Your task to perform on an android device: change keyboard looks Image 0: 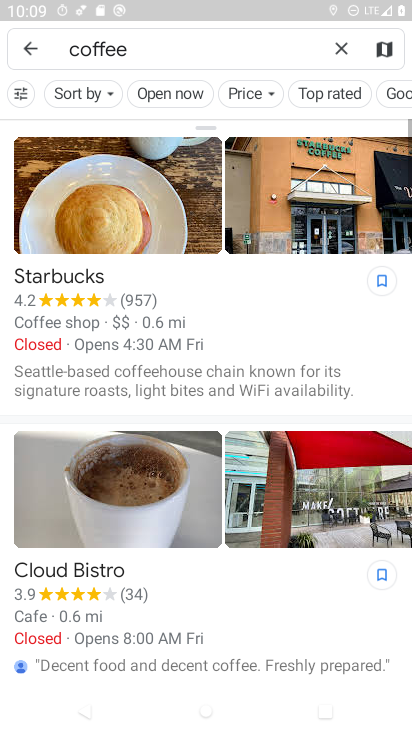
Step 0: press home button
Your task to perform on an android device: change keyboard looks Image 1: 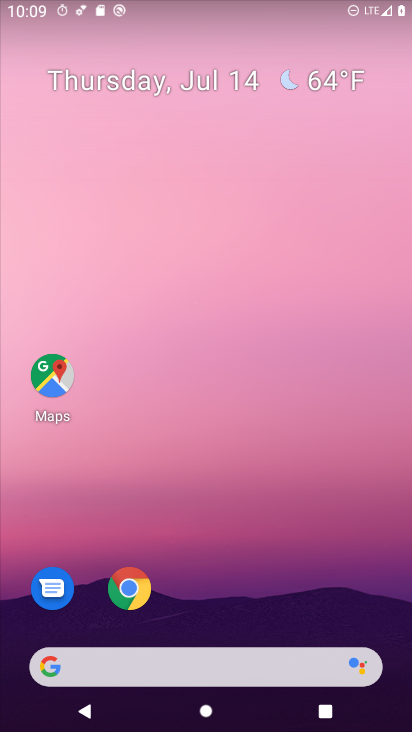
Step 1: drag from (344, 610) to (365, 108)
Your task to perform on an android device: change keyboard looks Image 2: 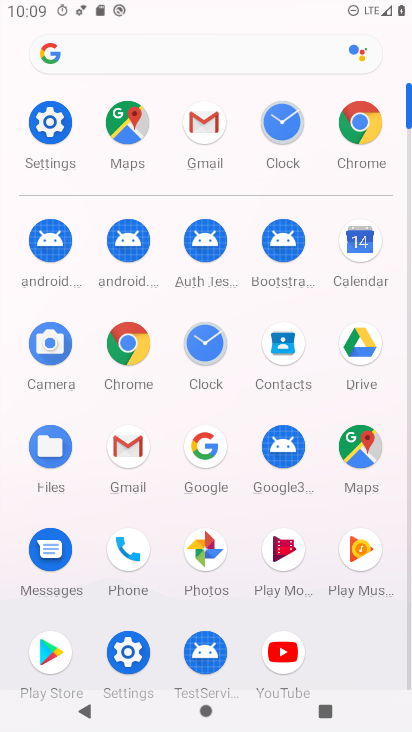
Step 2: click (50, 136)
Your task to perform on an android device: change keyboard looks Image 3: 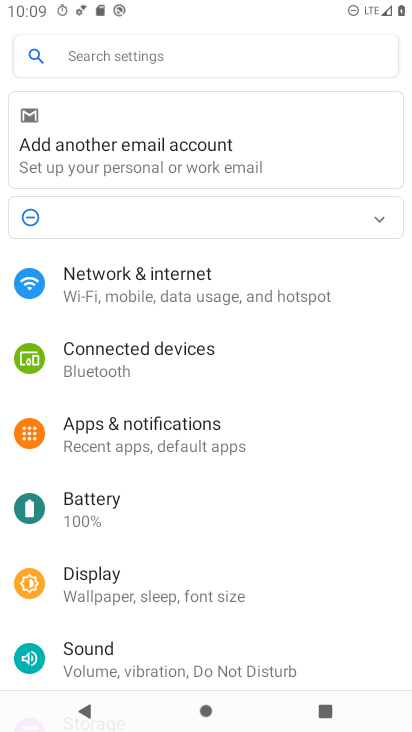
Step 3: drag from (334, 507) to (345, 437)
Your task to perform on an android device: change keyboard looks Image 4: 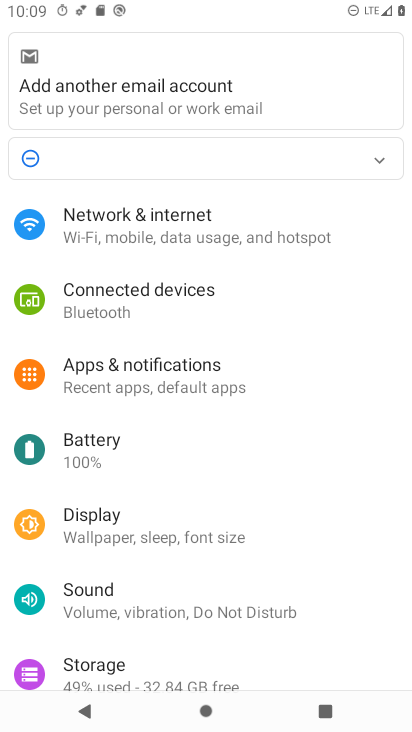
Step 4: drag from (338, 575) to (354, 503)
Your task to perform on an android device: change keyboard looks Image 5: 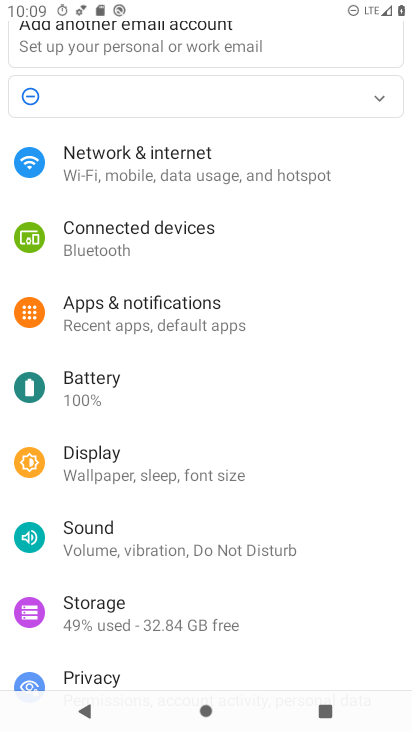
Step 5: drag from (351, 595) to (358, 514)
Your task to perform on an android device: change keyboard looks Image 6: 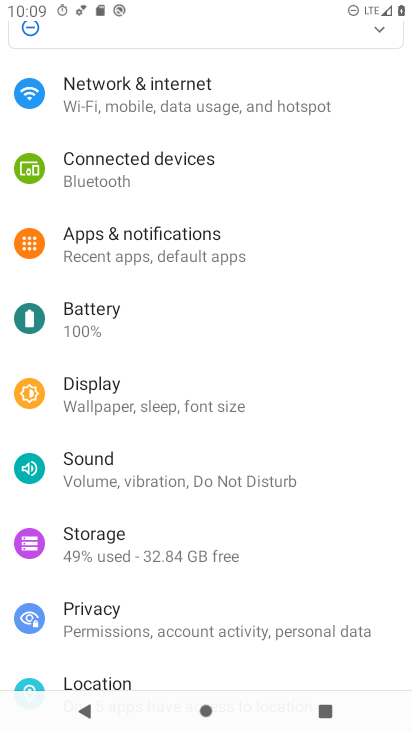
Step 6: drag from (346, 565) to (345, 472)
Your task to perform on an android device: change keyboard looks Image 7: 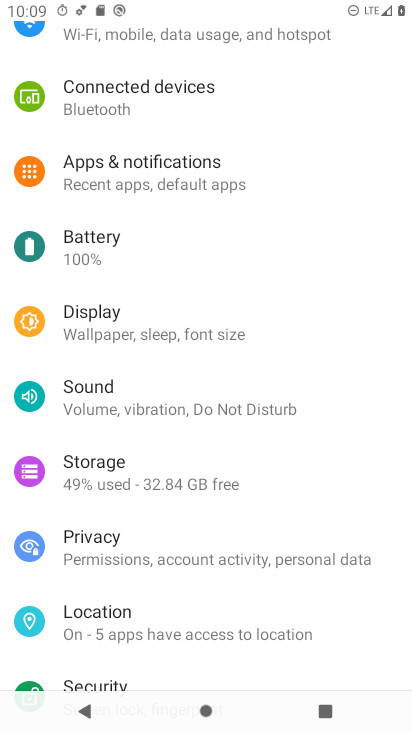
Step 7: drag from (357, 582) to (352, 502)
Your task to perform on an android device: change keyboard looks Image 8: 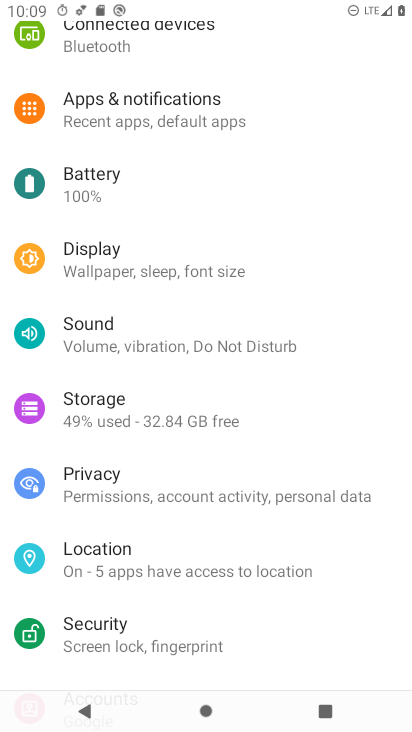
Step 8: drag from (301, 441) to (298, 381)
Your task to perform on an android device: change keyboard looks Image 9: 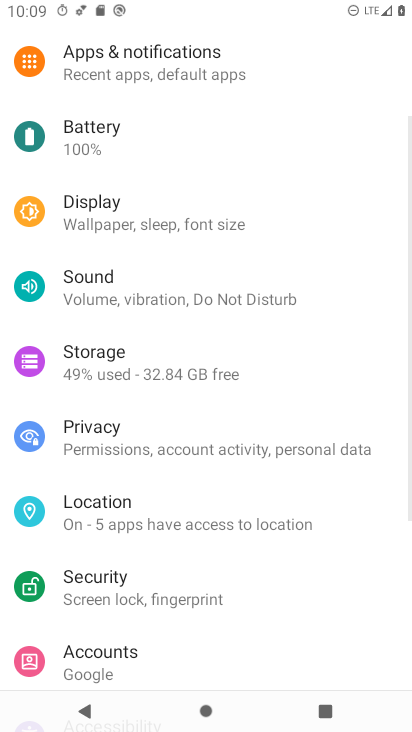
Step 9: drag from (327, 474) to (331, 392)
Your task to perform on an android device: change keyboard looks Image 10: 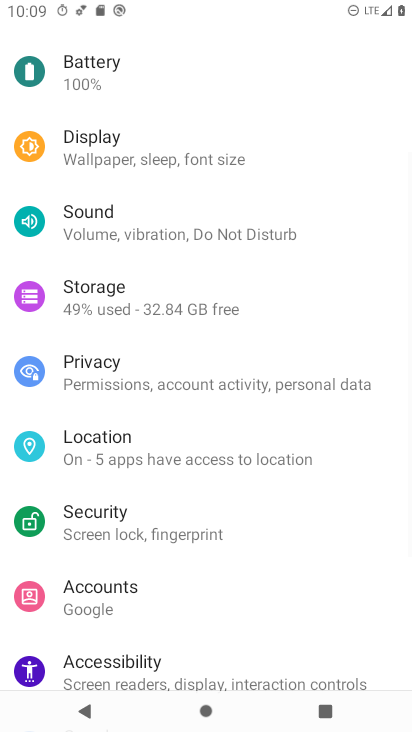
Step 10: drag from (338, 527) to (356, 419)
Your task to perform on an android device: change keyboard looks Image 11: 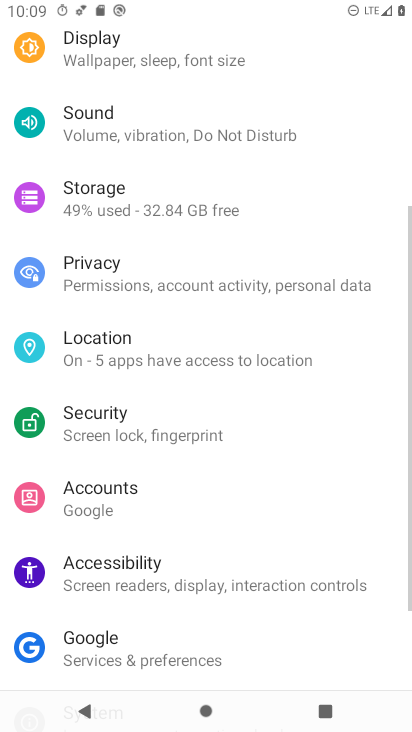
Step 11: drag from (349, 514) to (362, 399)
Your task to perform on an android device: change keyboard looks Image 12: 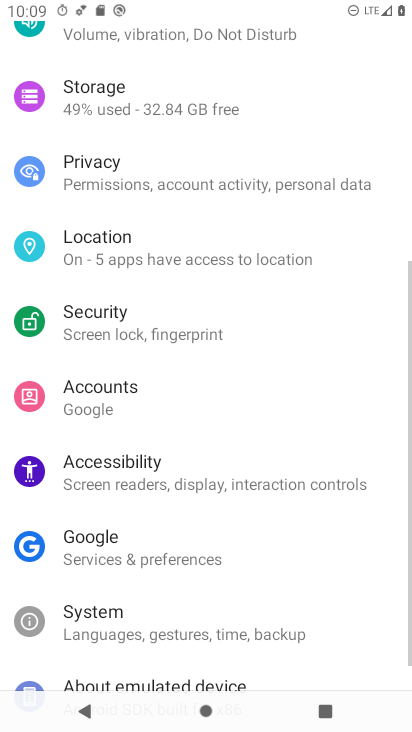
Step 12: drag from (346, 560) to (353, 462)
Your task to perform on an android device: change keyboard looks Image 13: 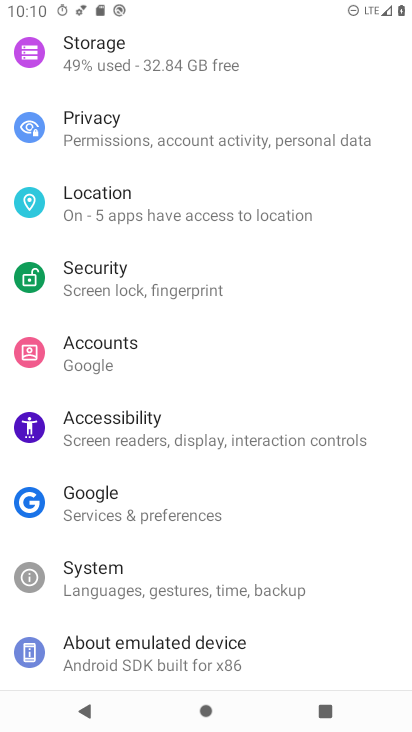
Step 13: click (303, 580)
Your task to perform on an android device: change keyboard looks Image 14: 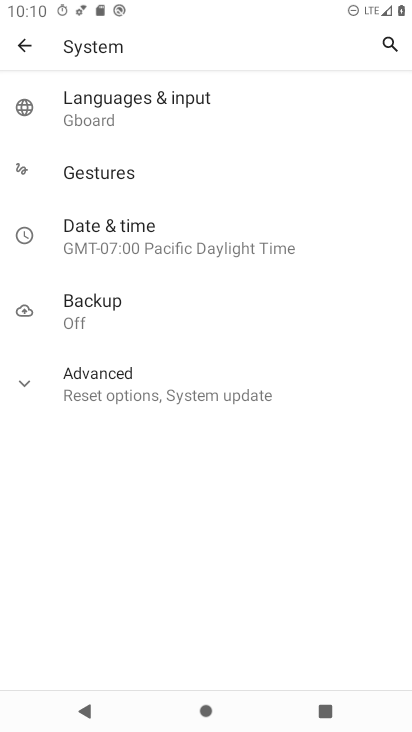
Step 14: click (163, 133)
Your task to perform on an android device: change keyboard looks Image 15: 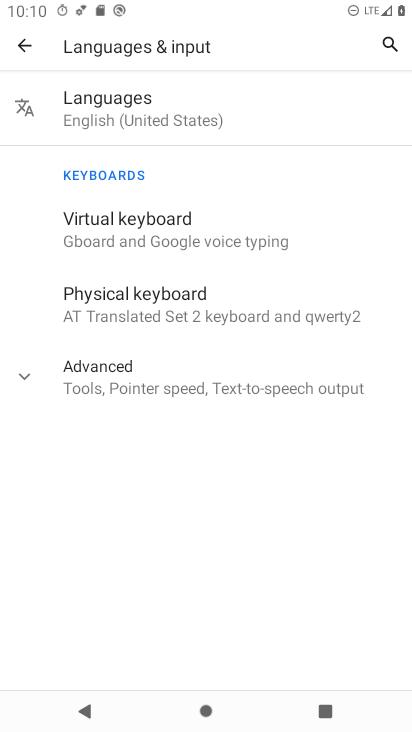
Step 15: click (161, 238)
Your task to perform on an android device: change keyboard looks Image 16: 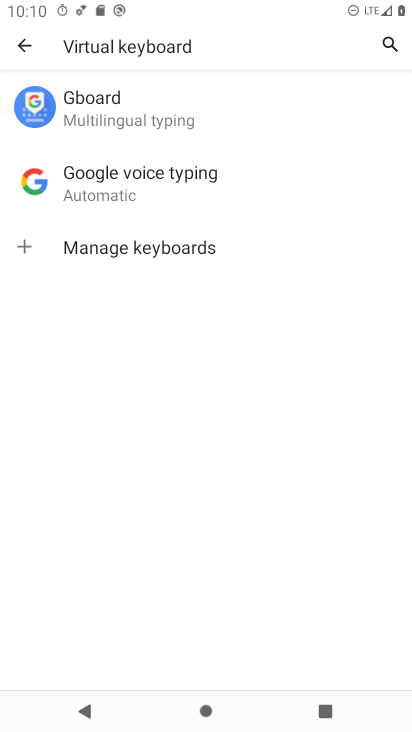
Step 16: click (191, 111)
Your task to perform on an android device: change keyboard looks Image 17: 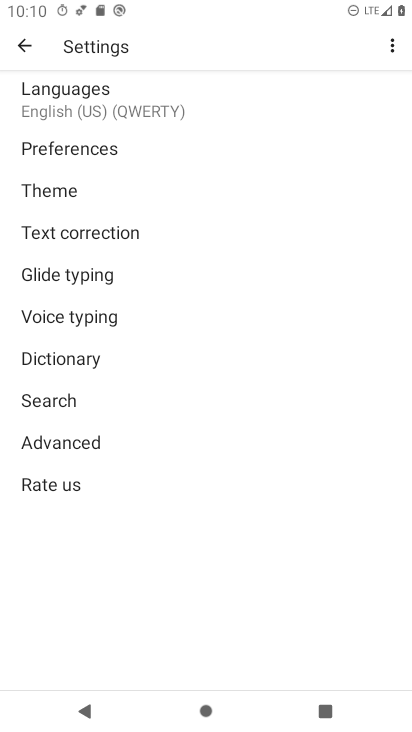
Step 17: click (106, 193)
Your task to perform on an android device: change keyboard looks Image 18: 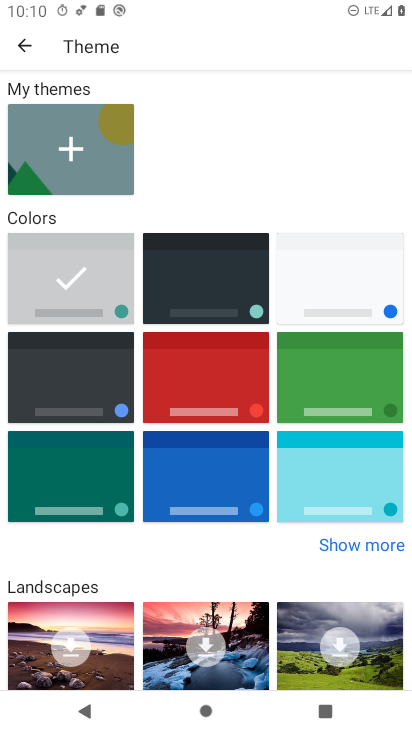
Step 18: click (192, 392)
Your task to perform on an android device: change keyboard looks Image 19: 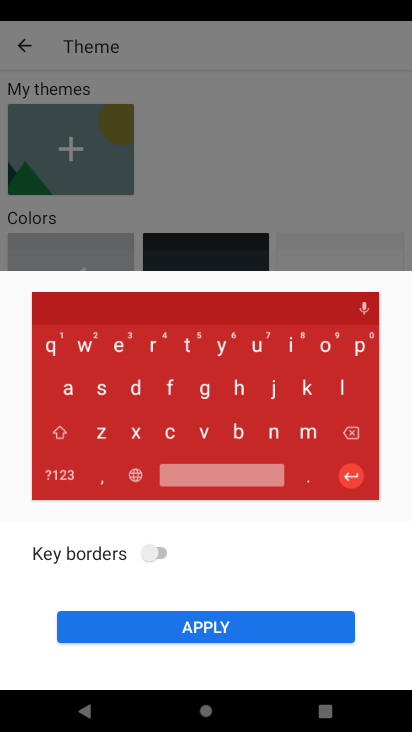
Step 19: click (301, 630)
Your task to perform on an android device: change keyboard looks Image 20: 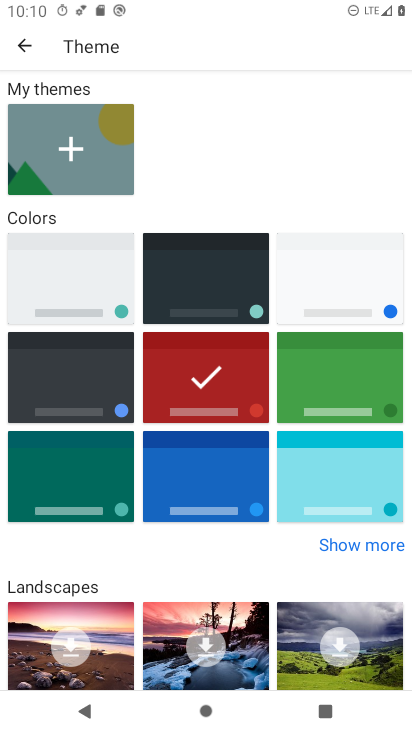
Step 20: task complete